Your task to perform on an android device: visit the assistant section in the google photos Image 0: 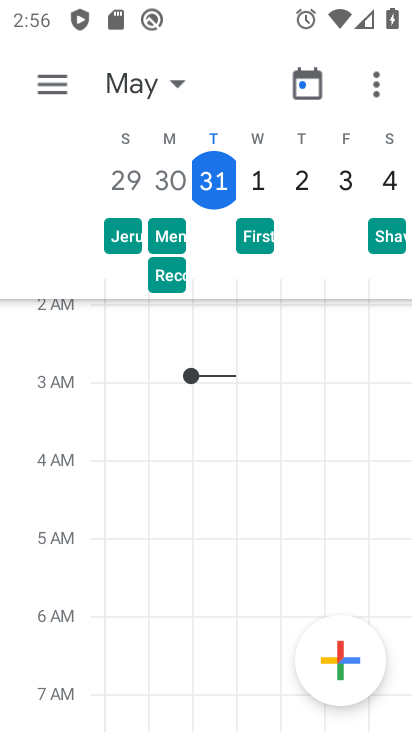
Step 0: press home button
Your task to perform on an android device: visit the assistant section in the google photos Image 1: 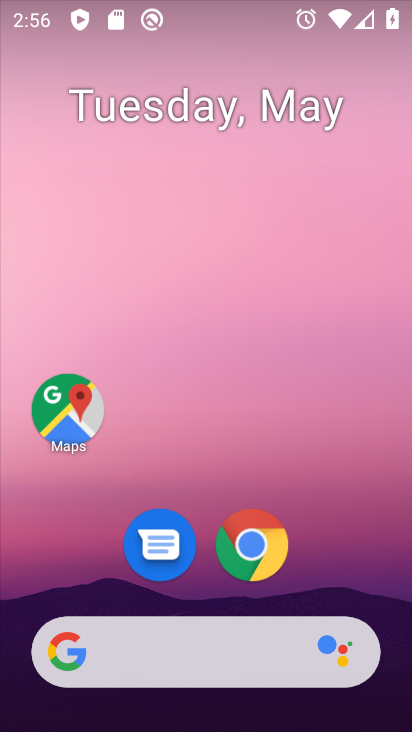
Step 1: drag from (169, 654) to (179, 176)
Your task to perform on an android device: visit the assistant section in the google photos Image 2: 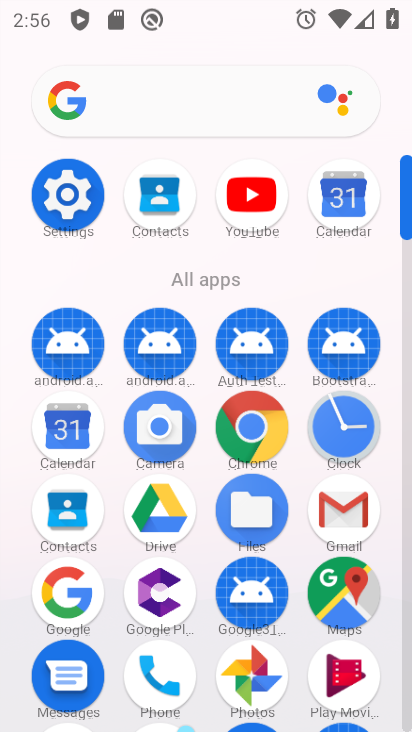
Step 2: click (240, 659)
Your task to perform on an android device: visit the assistant section in the google photos Image 3: 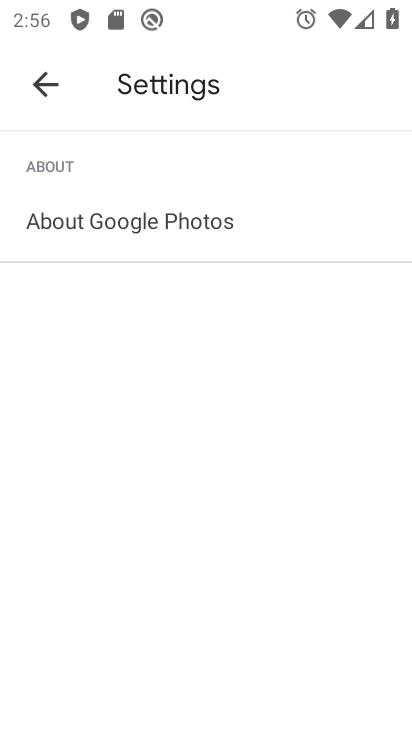
Step 3: click (47, 74)
Your task to perform on an android device: visit the assistant section in the google photos Image 4: 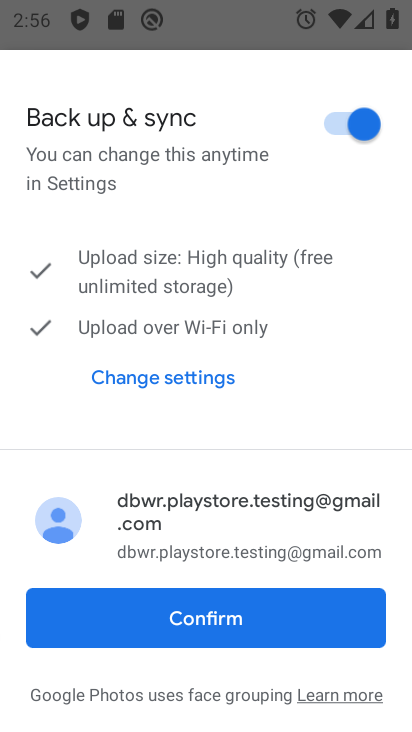
Step 4: click (194, 616)
Your task to perform on an android device: visit the assistant section in the google photos Image 5: 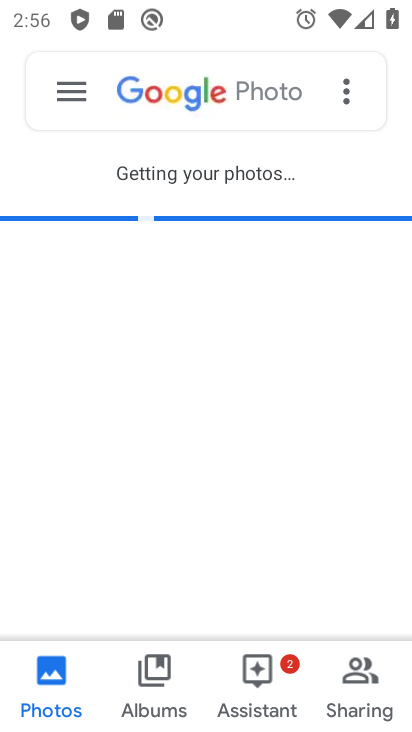
Step 5: click (262, 691)
Your task to perform on an android device: visit the assistant section in the google photos Image 6: 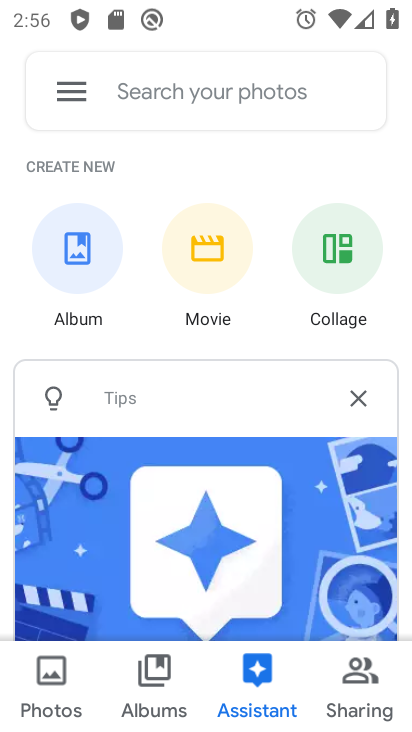
Step 6: task complete